Your task to perform on an android device: Open the stopwatch Image 0: 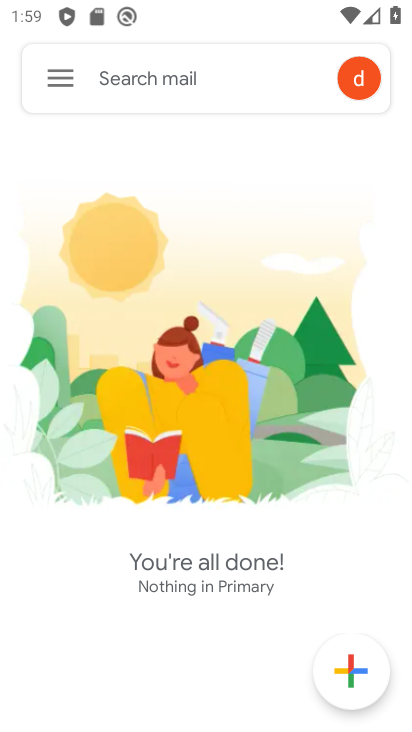
Step 0: press home button
Your task to perform on an android device: Open the stopwatch Image 1: 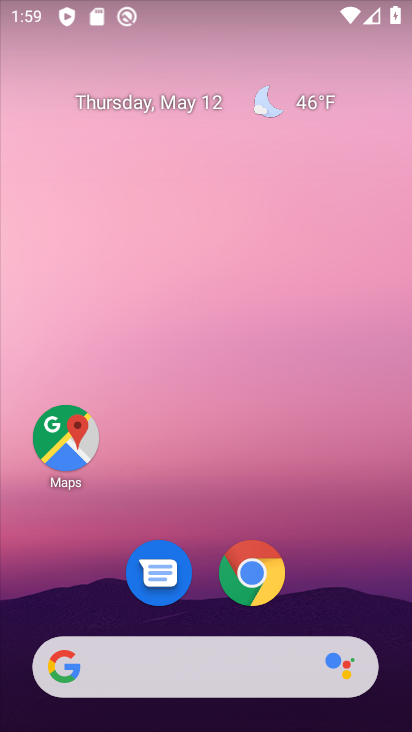
Step 1: drag from (210, 600) to (201, 86)
Your task to perform on an android device: Open the stopwatch Image 2: 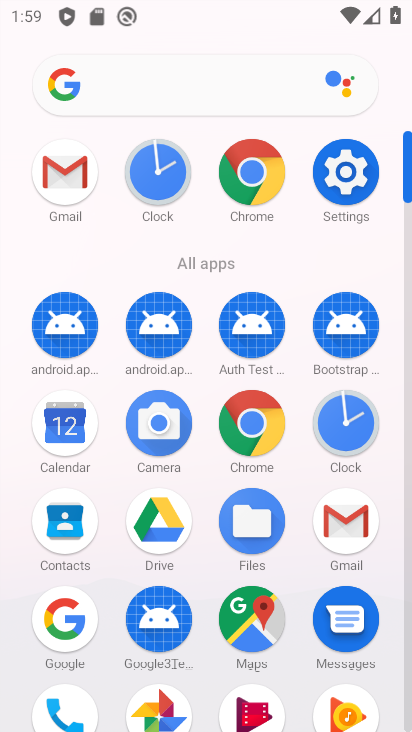
Step 2: click (162, 167)
Your task to perform on an android device: Open the stopwatch Image 3: 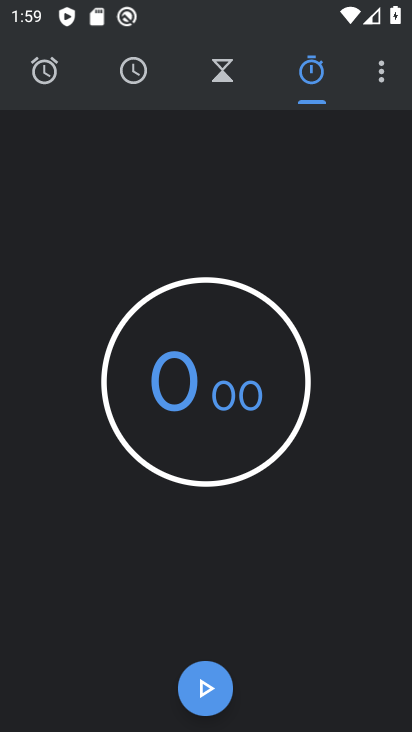
Step 3: click (217, 689)
Your task to perform on an android device: Open the stopwatch Image 4: 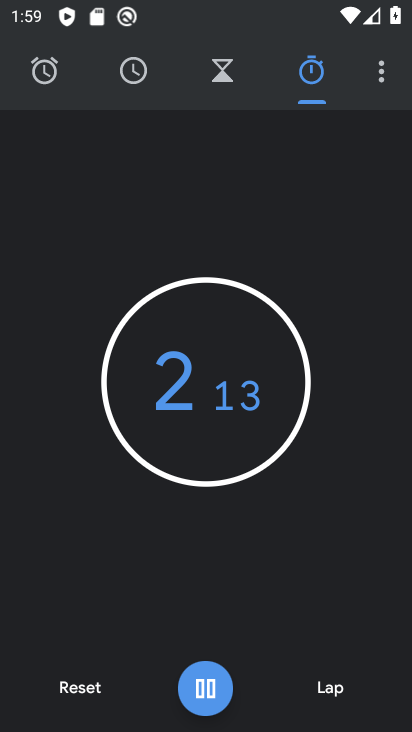
Step 4: click (217, 705)
Your task to perform on an android device: Open the stopwatch Image 5: 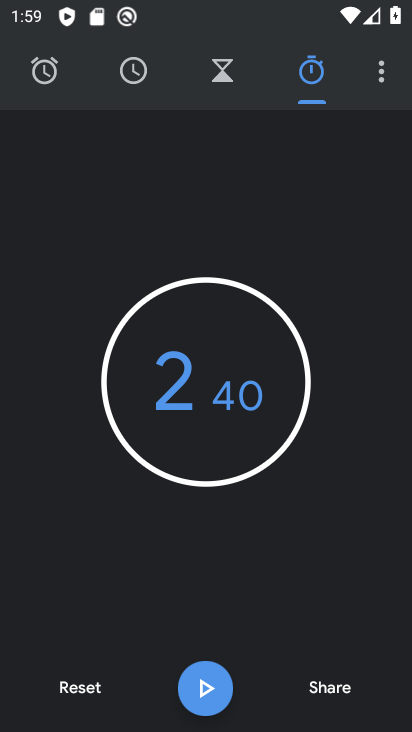
Step 5: task complete